Your task to perform on an android device: clear history in the chrome app Image 0: 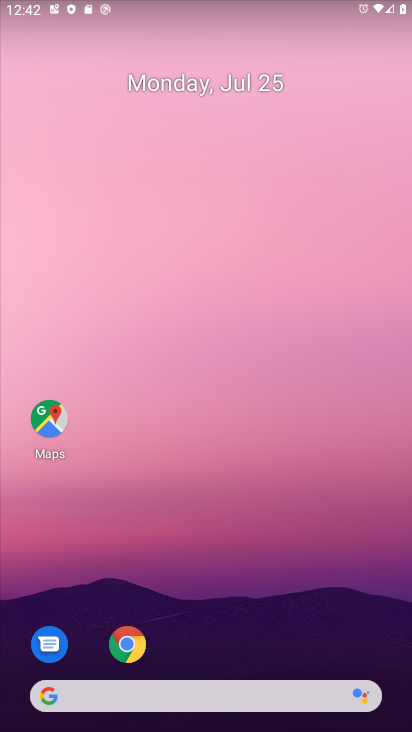
Step 0: drag from (345, 642) to (183, 20)
Your task to perform on an android device: clear history in the chrome app Image 1: 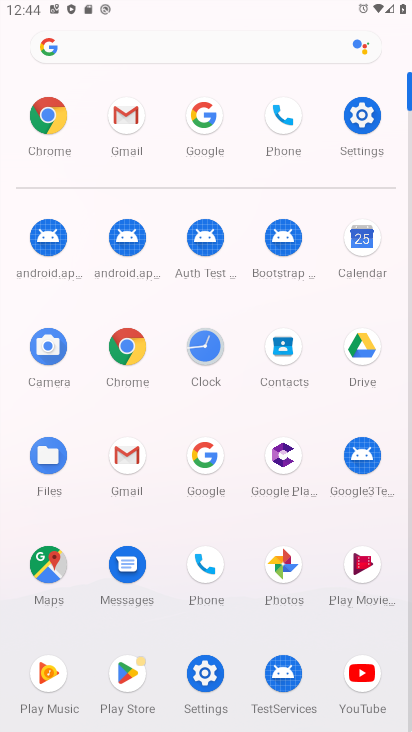
Step 1: click (125, 333)
Your task to perform on an android device: clear history in the chrome app Image 2: 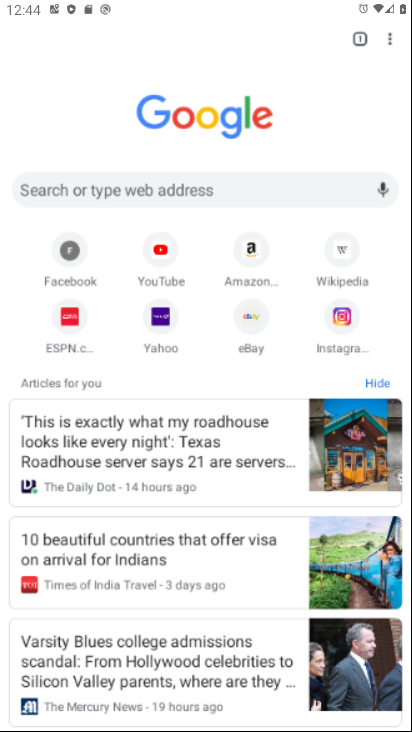
Step 2: click (388, 41)
Your task to perform on an android device: clear history in the chrome app Image 3: 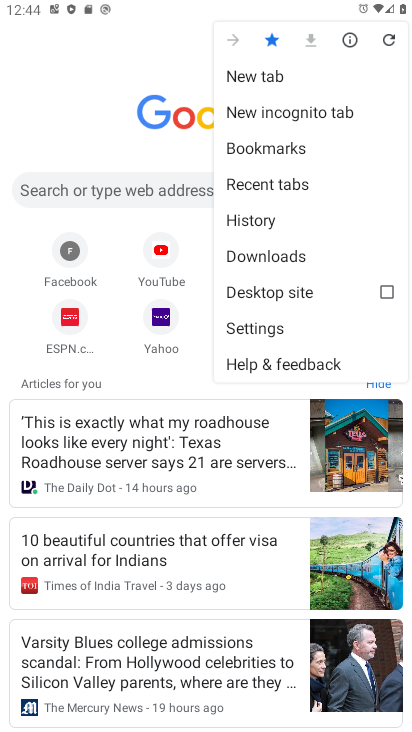
Step 3: click (267, 216)
Your task to perform on an android device: clear history in the chrome app Image 4: 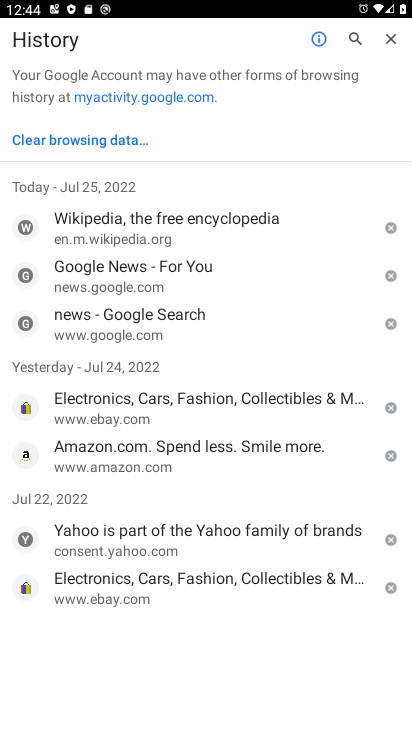
Step 4: click (82, 142)
Your task to perform on an android device: clear history in the chrome app Image 5: 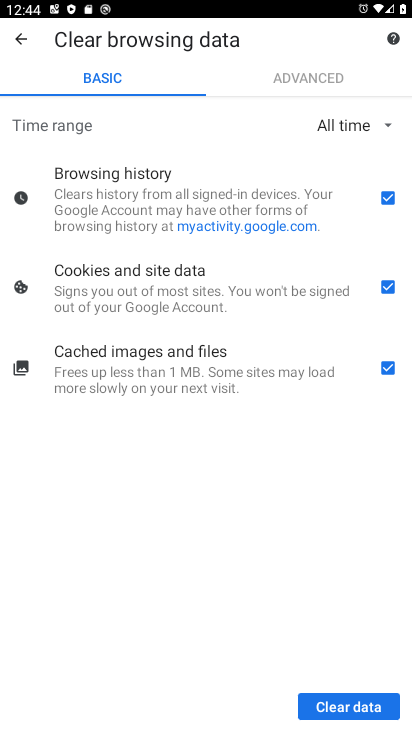
Step 5: click (355, 702)
Your task to perform on an android device: clear history in the chrome app Image 6: 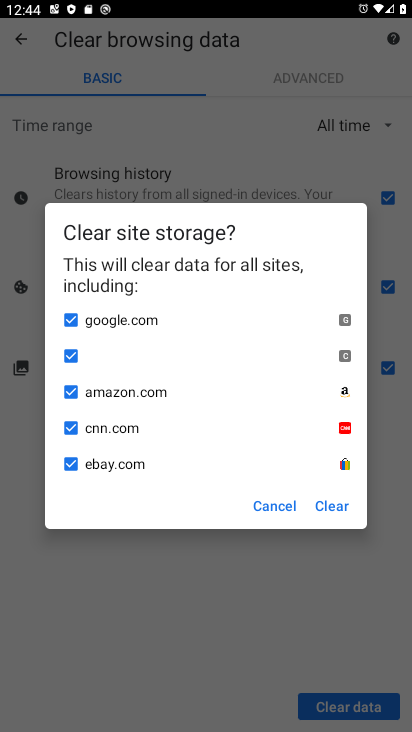
Step 6: click (336, 497)
Your task to perform on an android device: clear history in the chrome app Image 7: 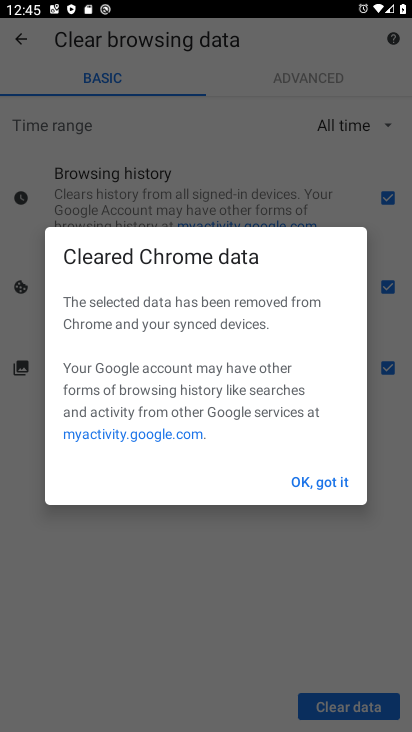
Step 7: click (333, 468)
Your task to perform on an android device: clear history in the chrome app Image 8: 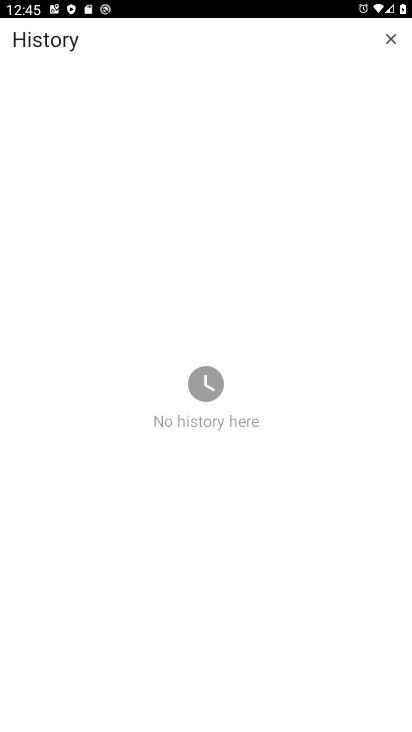
Step 8: task complete